Your task to perform on an android device: What's the weather today? Image 0: 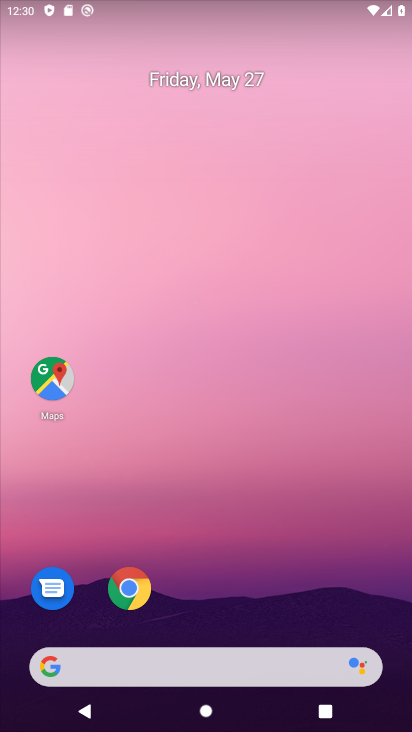
Step 0: click (176, 658)
Your task to perform on an android device: What's the weather today? Image 1: 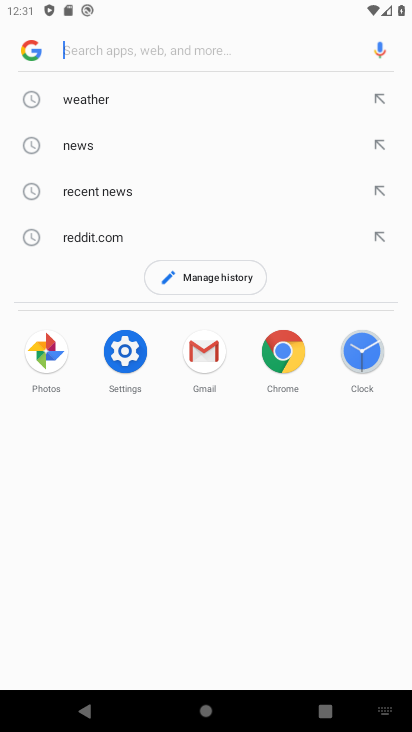
Step 1: click (84, 105)
Your task to perform on an android device: What's the weather today? Image 2: 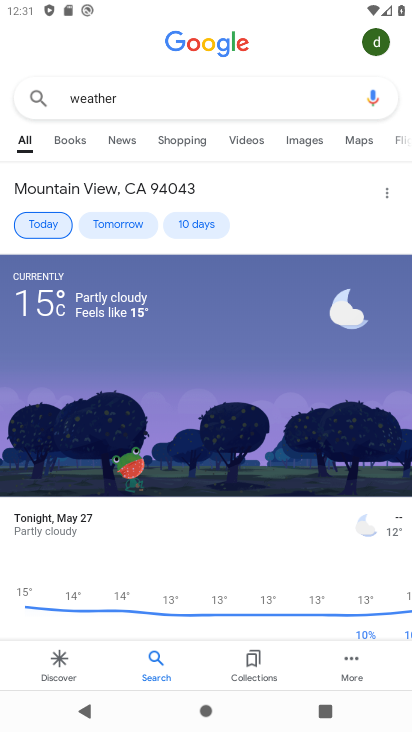
Step 2: task complete